Your task to perform on an android device: Open Google Maps Image 0: 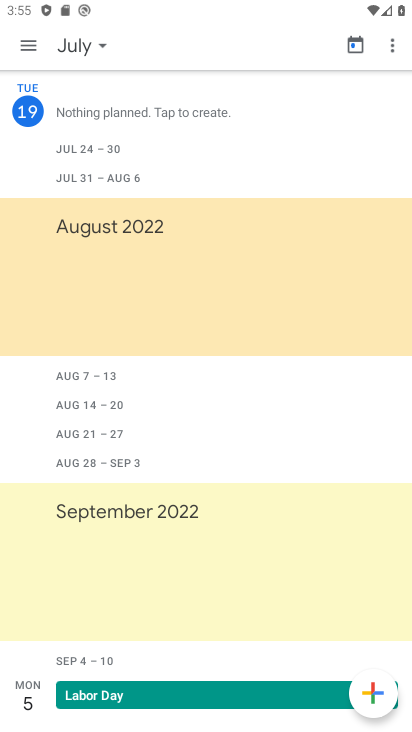
Step 0: press home button
Your task to perform on an android device: Open Google Maps Image 1: 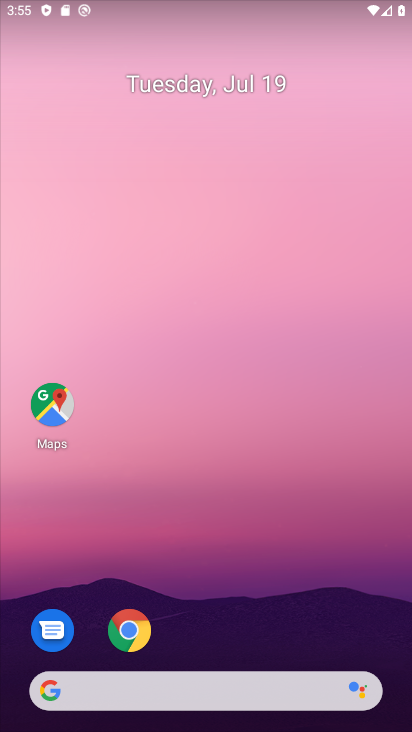
Step 1: click (46, 390)
Your task to perform on an android device: Open Google Maps Image 2: 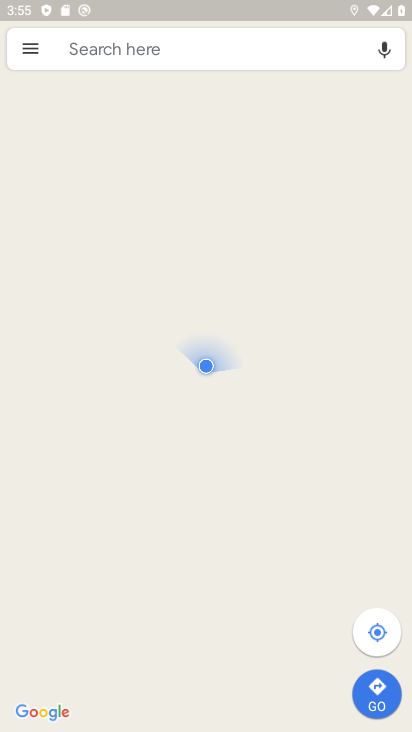
Step 2: task complete